Your task to perform on an android device: Is it going to rain tomorrow? Image 0: 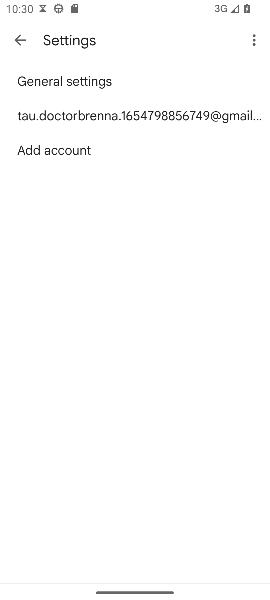
Step 0: press home button
Your task to perform on an android device: Is it going to rain tomorrow? Image 1: 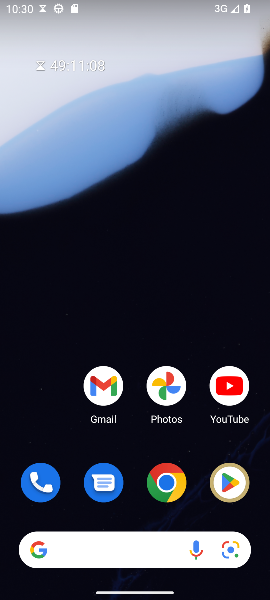
Step 1: drag from (74, 512) to (25, 78)
Your task to perform on an android device: Is it going to rain tomorrow? Image 2: 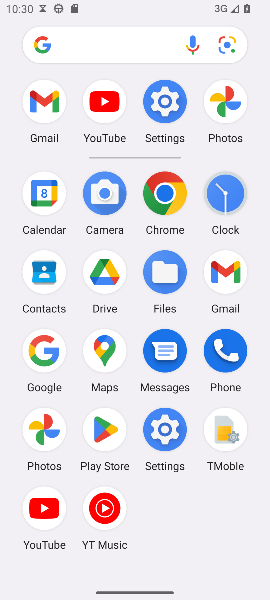
Step 2: click (31, 357)
Your task to perform on an android device: Is it going to rain tomorrow? Image 3: 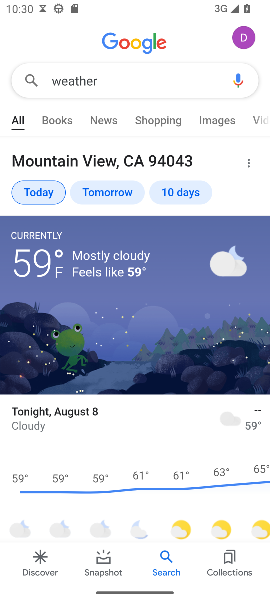
Step 3: click (116, 197)
Your task to perform on an android device: Is it going to rain tomorrow? Image 4: 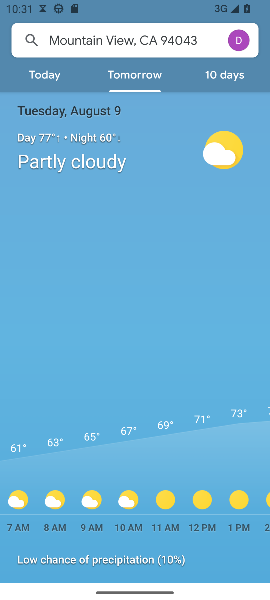
Step 4: task complete